Your task to perform on an android device: Open location settings Image 0: 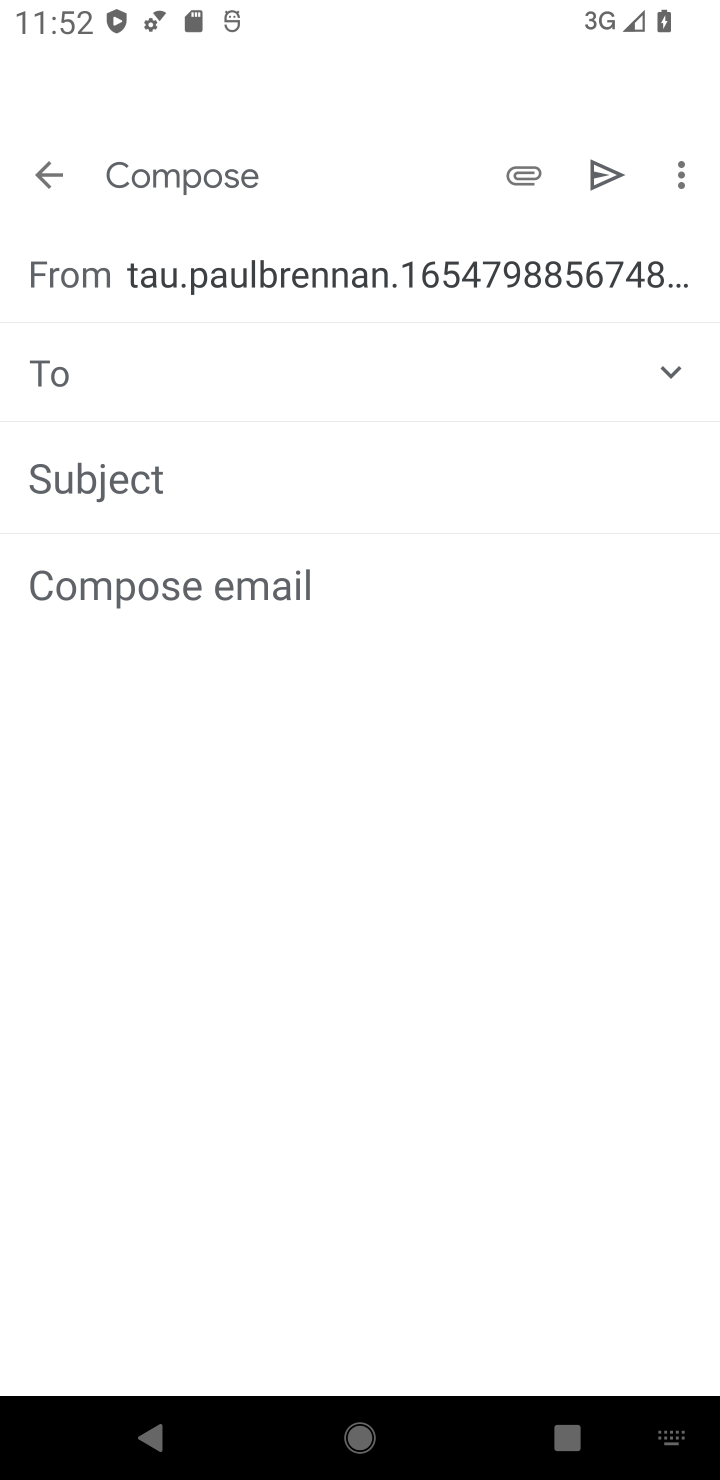
Step 0: press home button
Your task to perform on an android device: Open location settings Image 1: 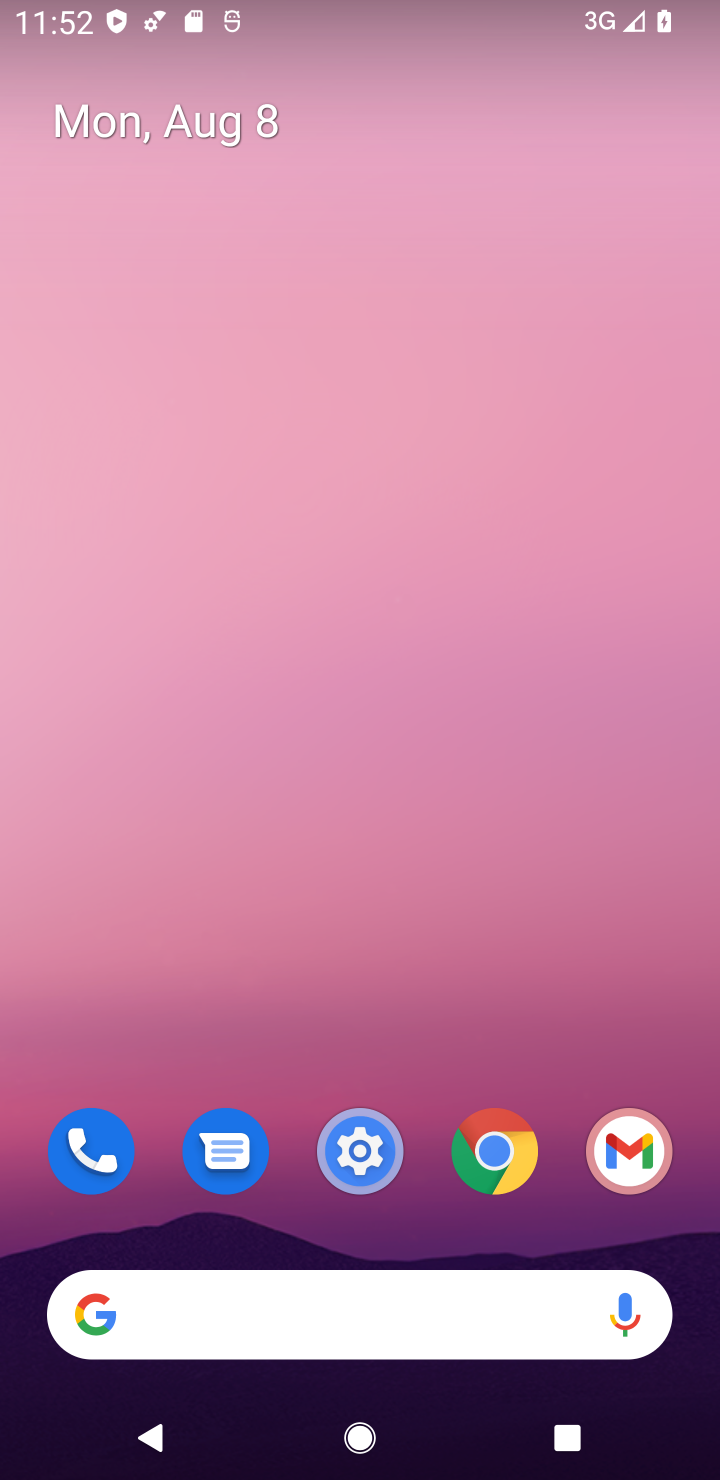
Step 1: click (329, 1138)
Your task to perform on an android device: Open location settings Image 2: 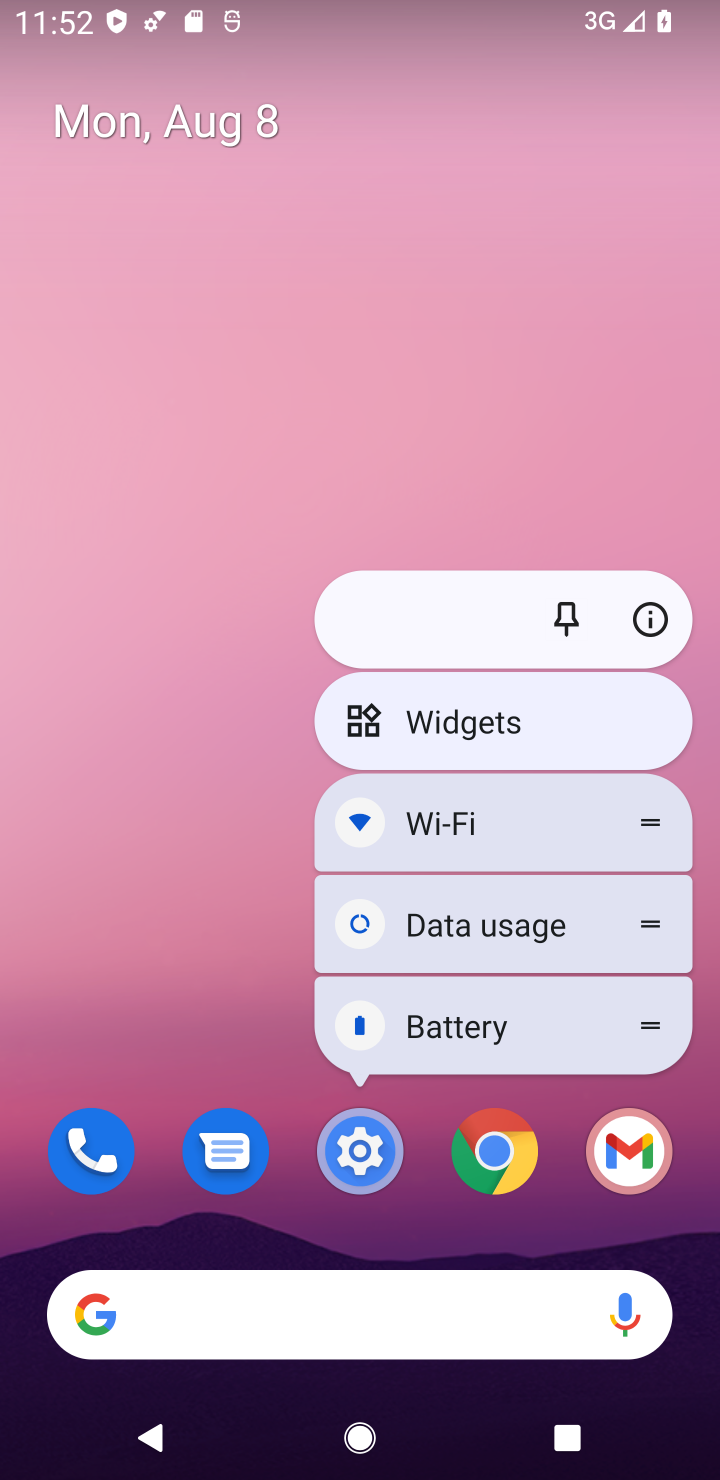
Step 2: click (352, 1166)
Your task to perform on an android device: Open location settings Image 3: 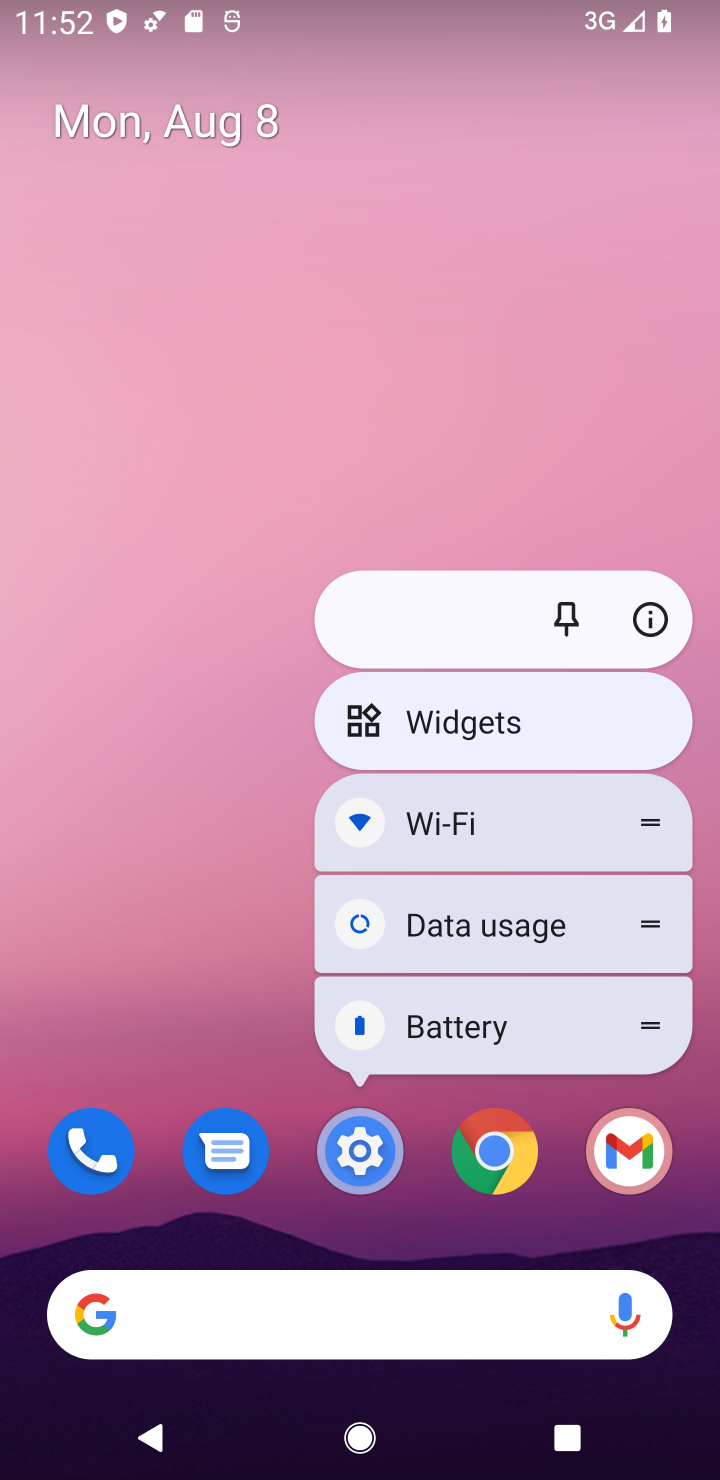
Step 3: click (352, 1166)
Your task to perform on an android device: Open location settings Image 4: 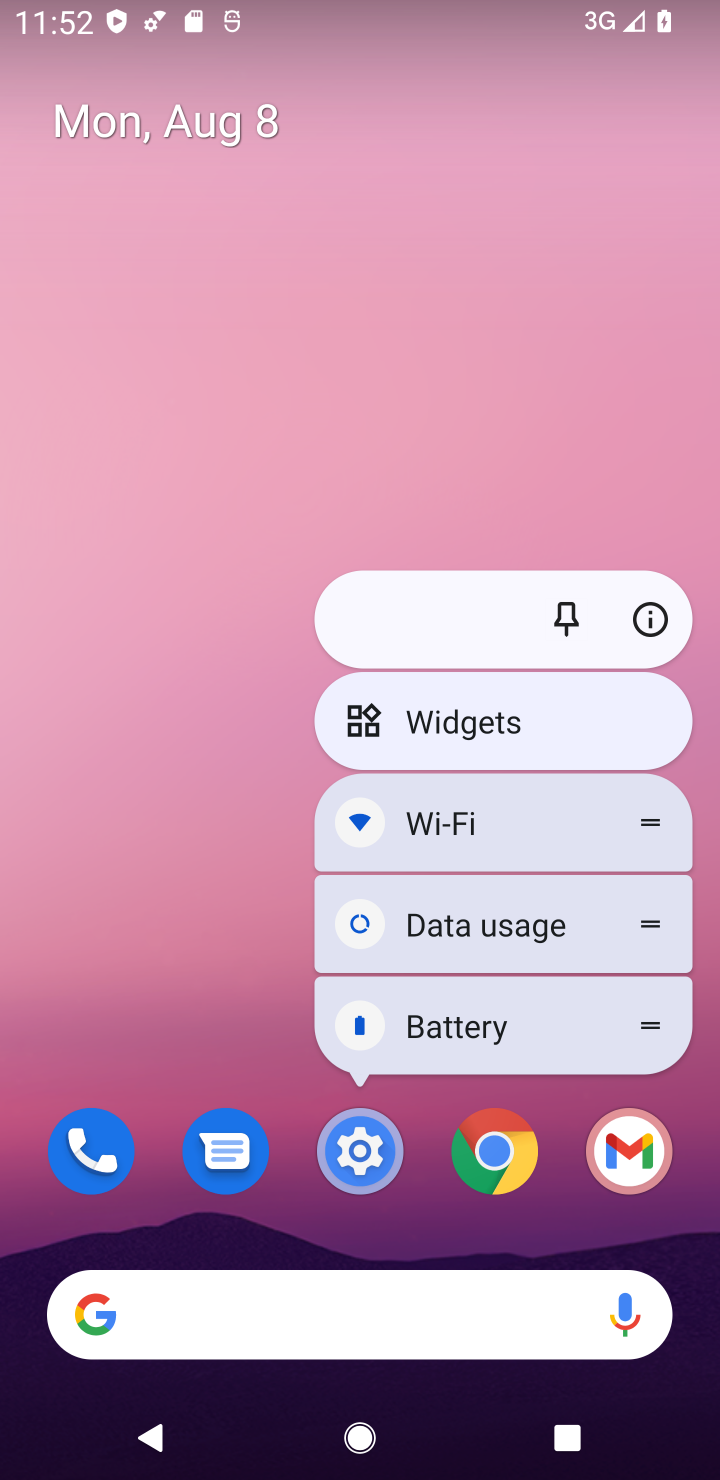
Step 4: click (366, 1147)
Your task to perform on an android device: Open location settings Image 5: 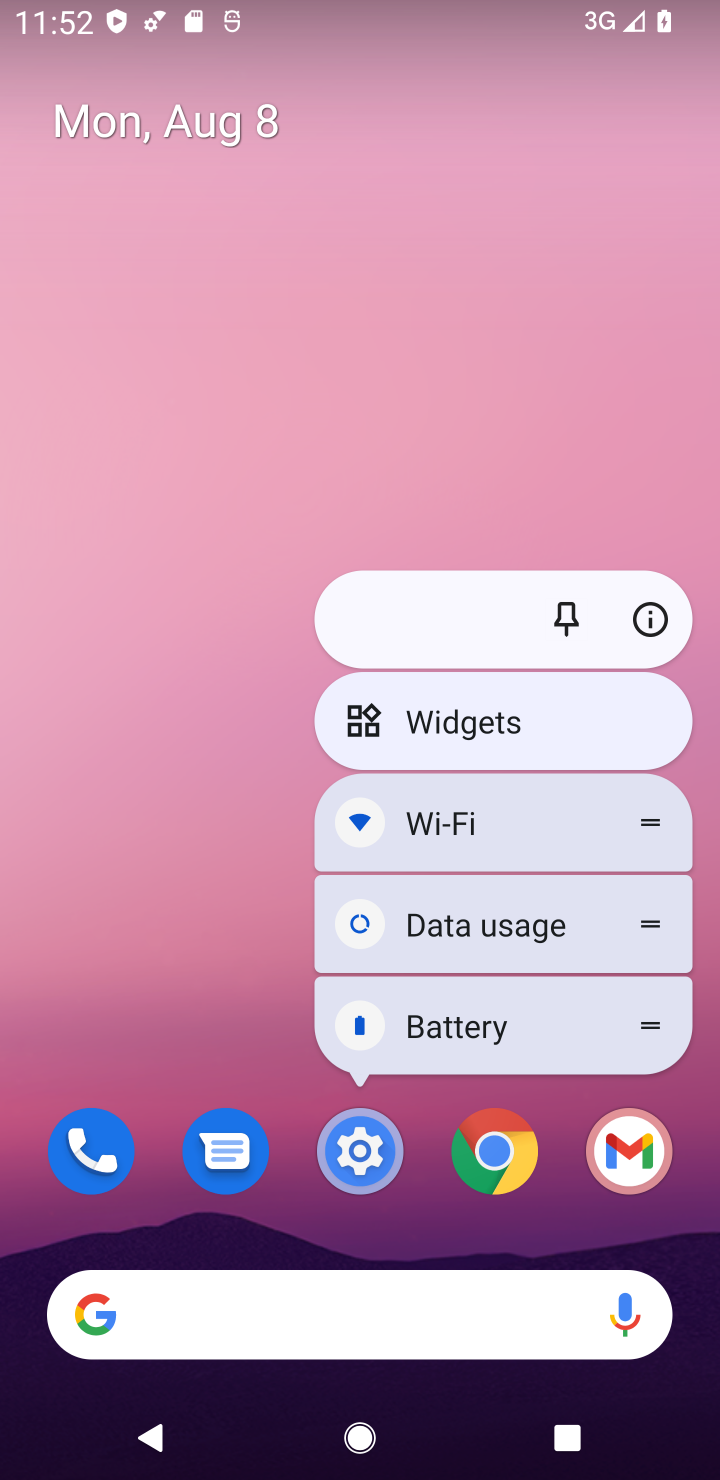
Step 5: click (365, 1149)
Your task to perform on an android device: Open location settings Image 6: 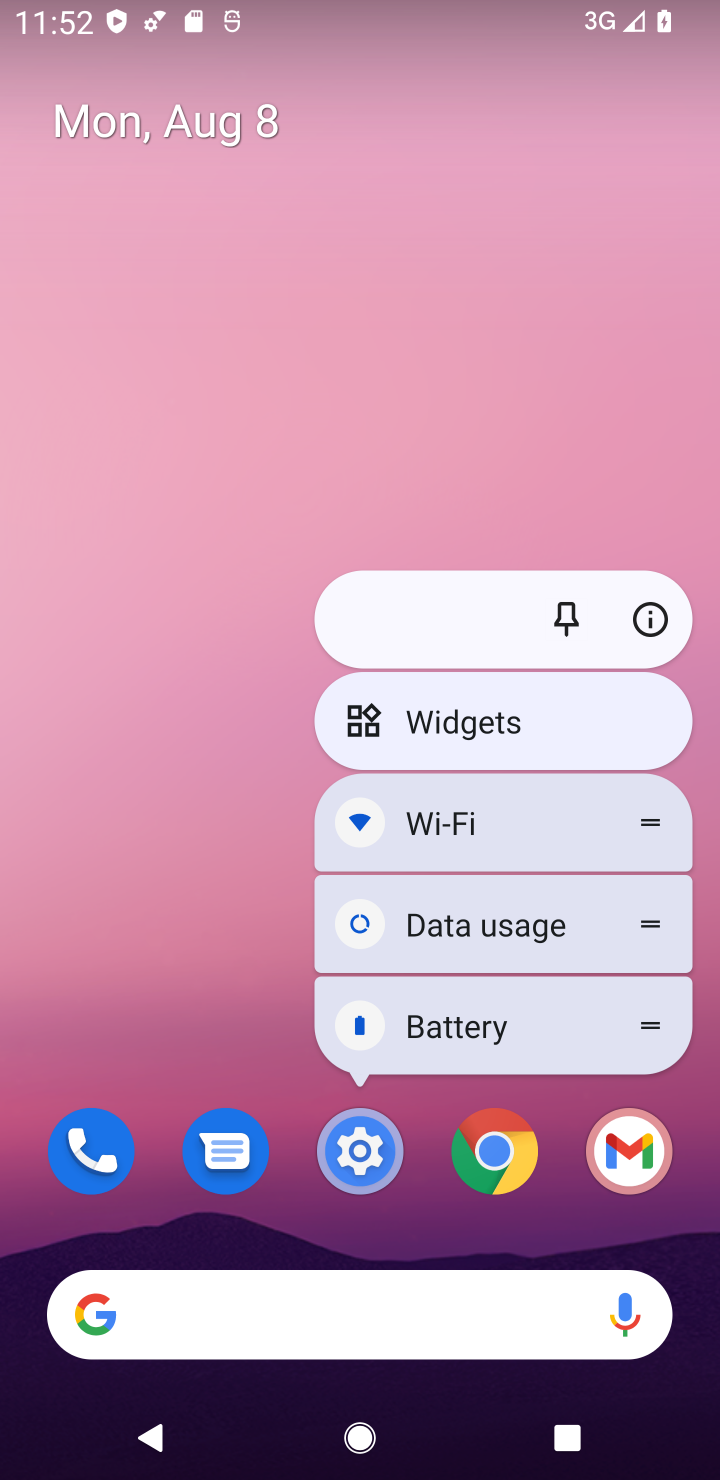
Step 6: click (388, 1166)
Your task to perform on an android device: Open location settings Image 7: 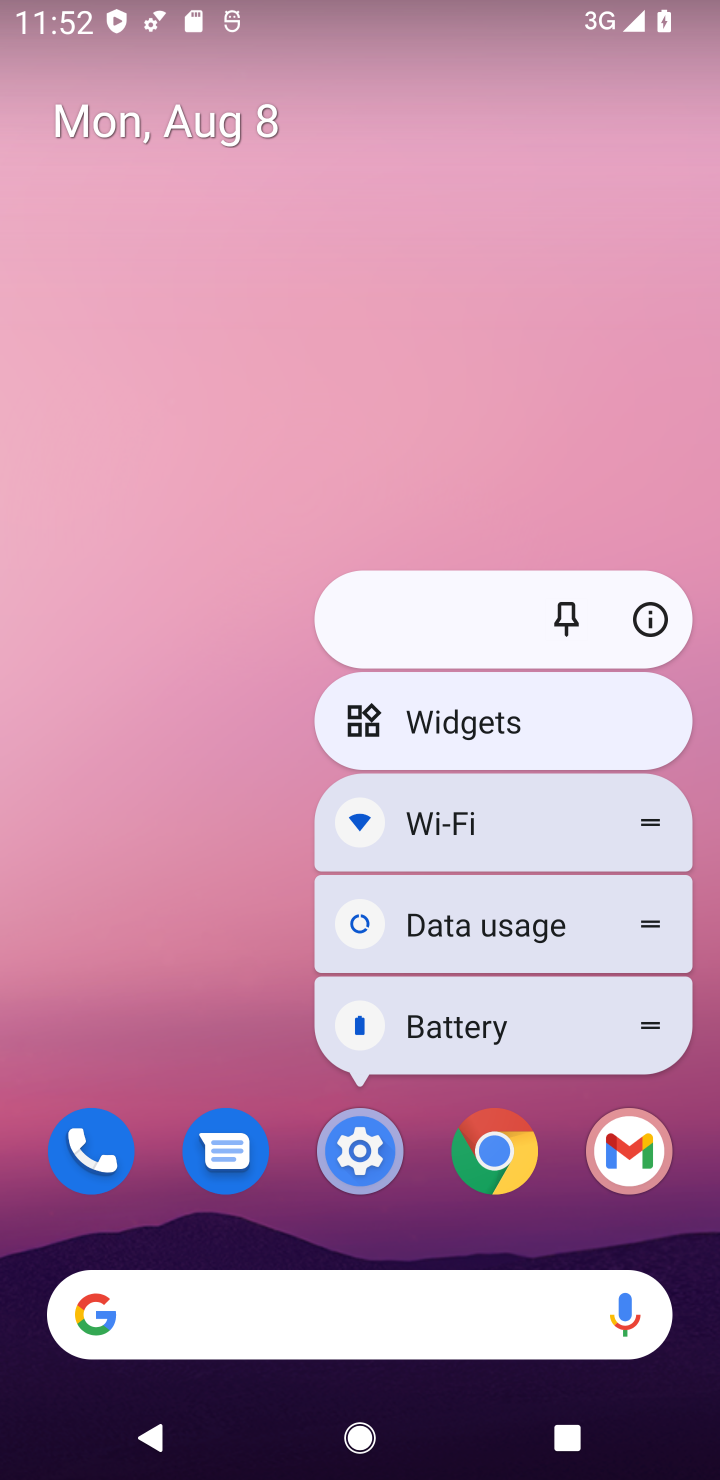
Step 7: click (363, 1145)
Your task to perform on an android device: Open location settings Image 8: 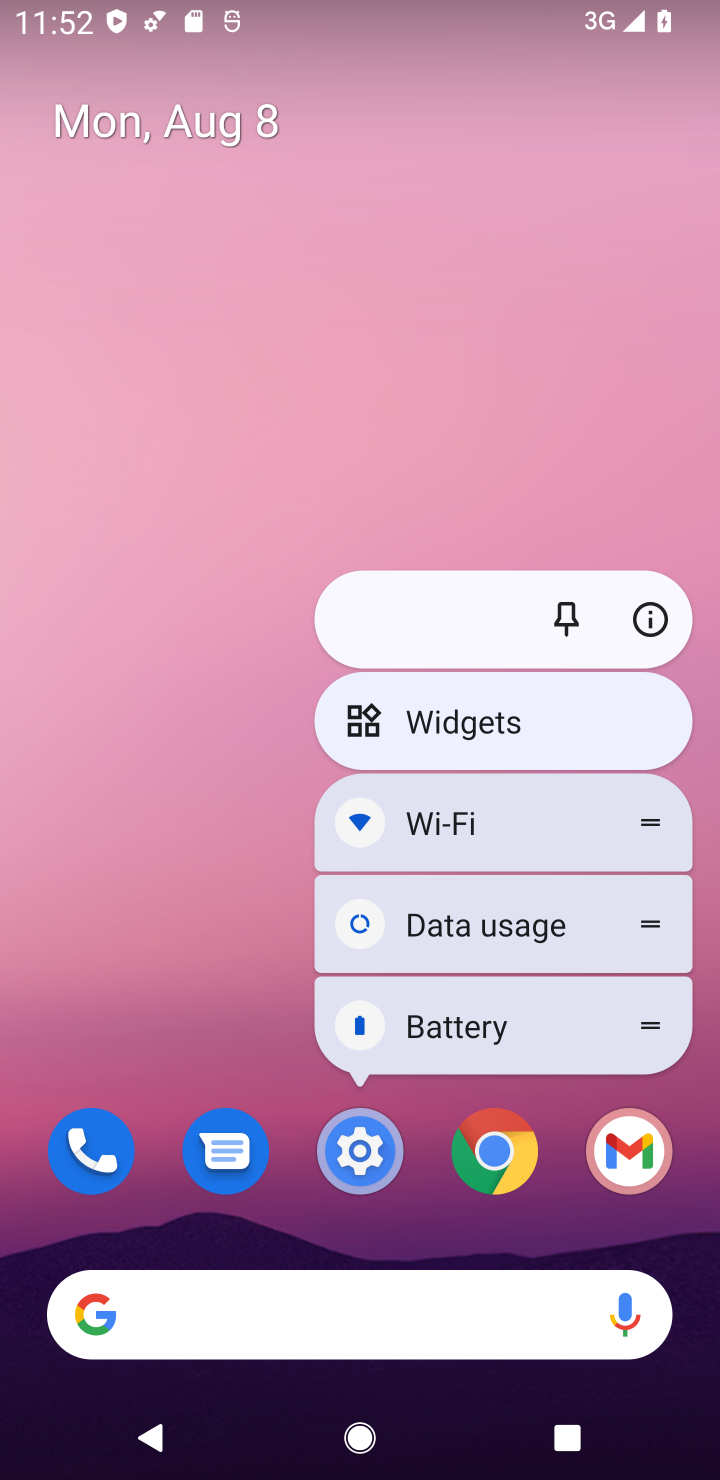
Step 8: click (362, 1180)
Your task to perform on an android device: Open location settings Image 9: 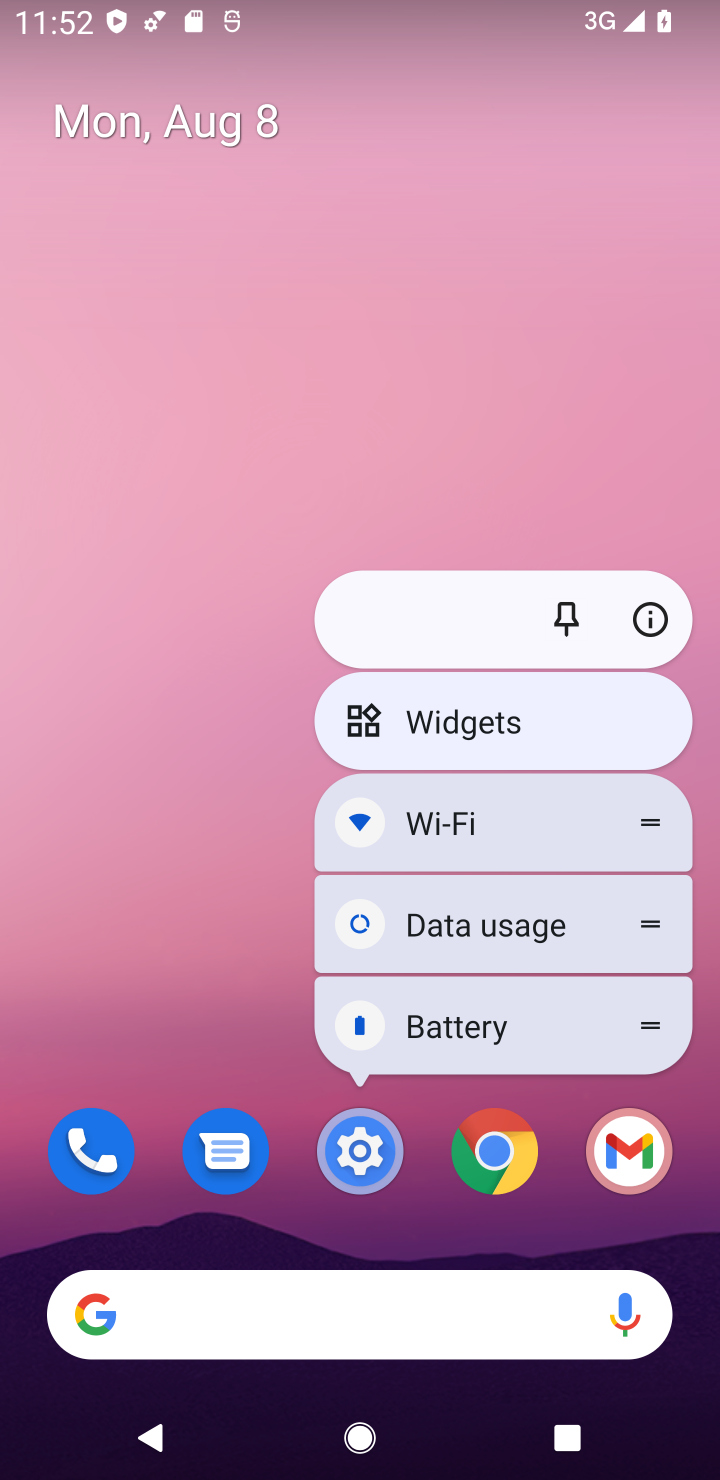
Step 9: click (374, 1176)
Your task to perform on an android device: Open location settings Image 10: 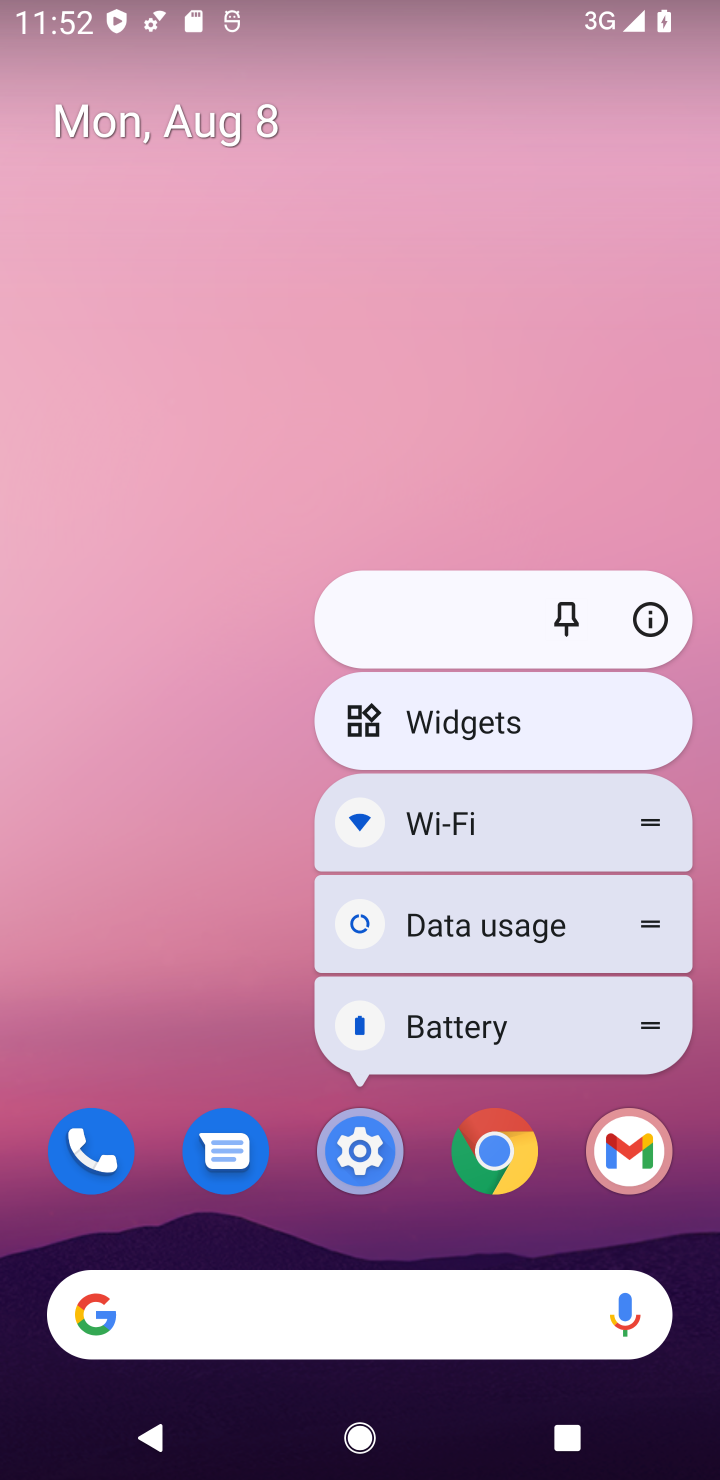
Step 10: click (361, 1148)
Your task to perform on an android device: Open location settings Image 11: 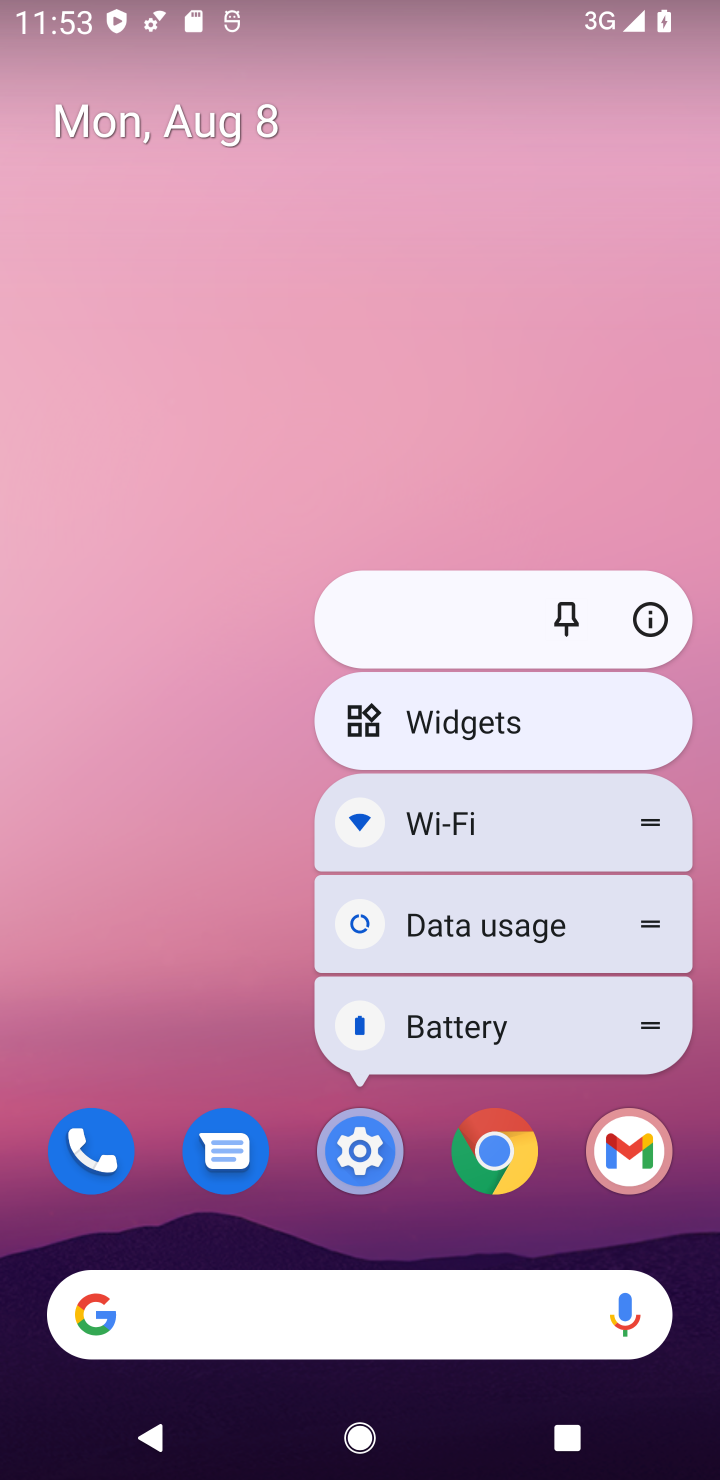
Step 11: click (375, 1155)
Your task to perform on an android device: Open location settings Image 12: 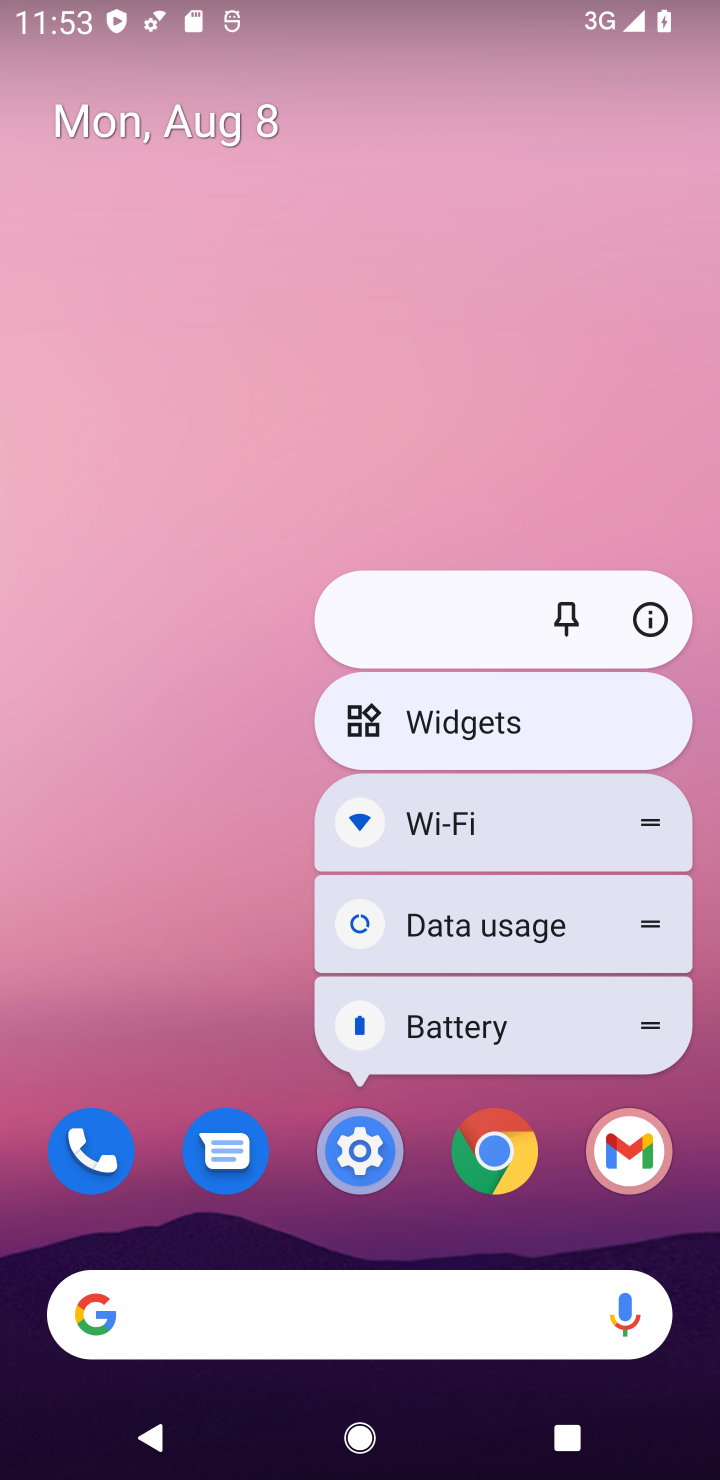
Step 12: drag from (292, 1254) to (179, 492)
Your task to perform on an android device: Open location settings Image 13: 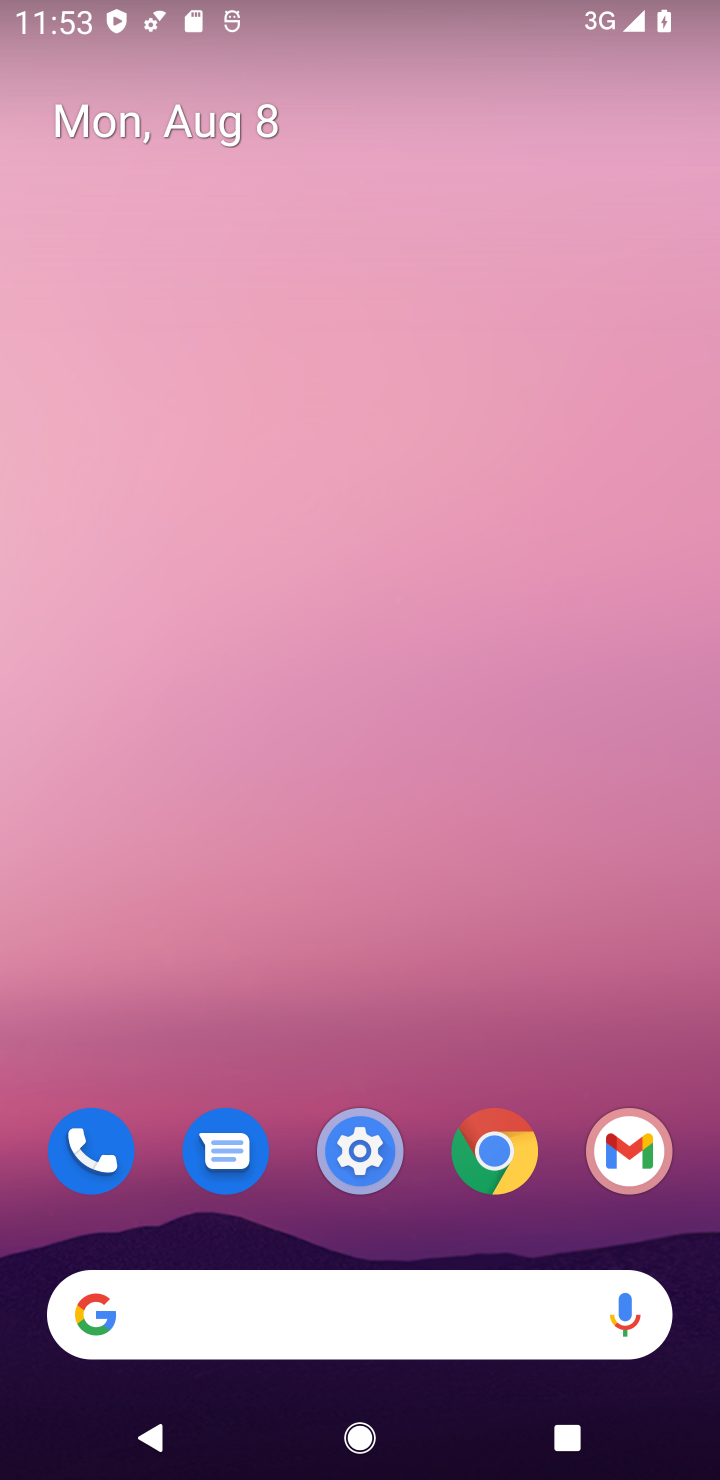
Step 13: drag from (408, 1254) to (243, 225)
Your task to perform on an android device: Open location settings Image 14: 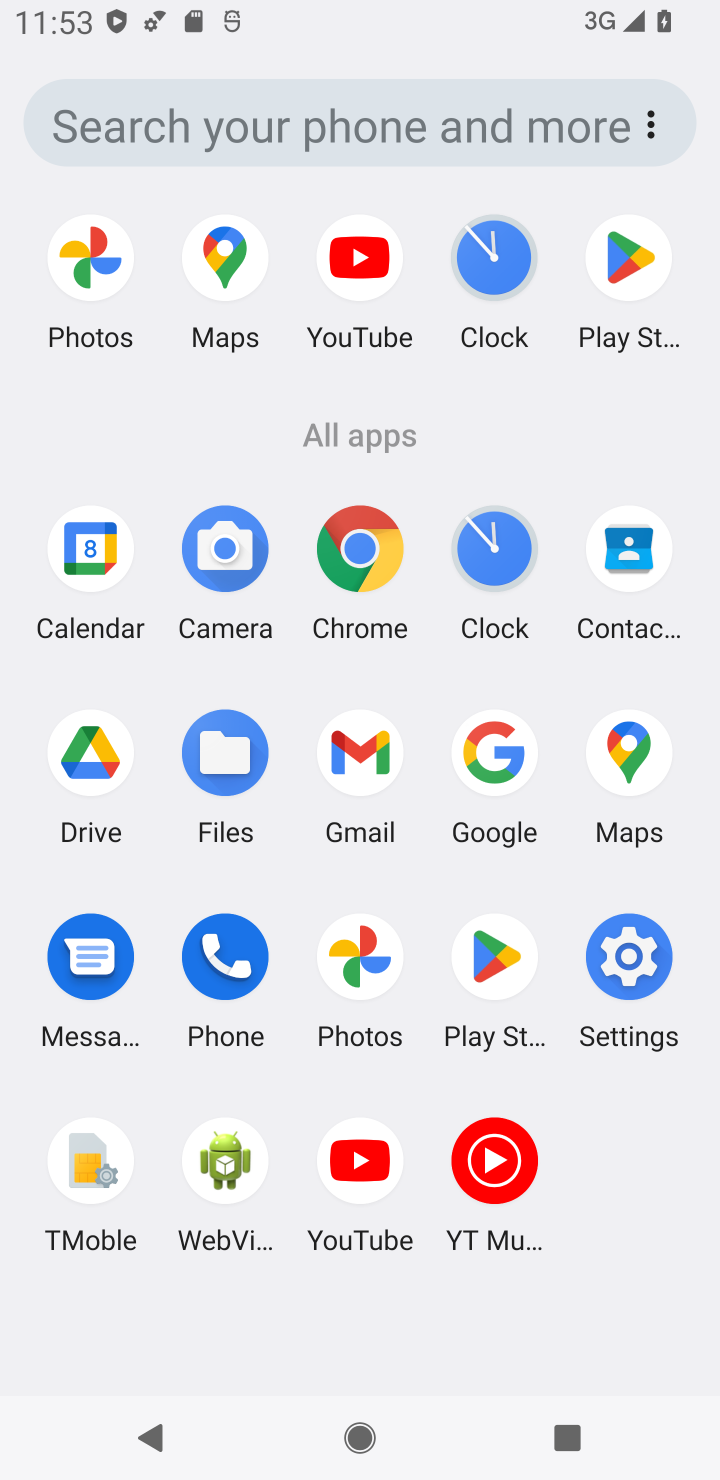
Step 14: click (636, 956)
Your task to perform on an android device: Open location settings Image 15: 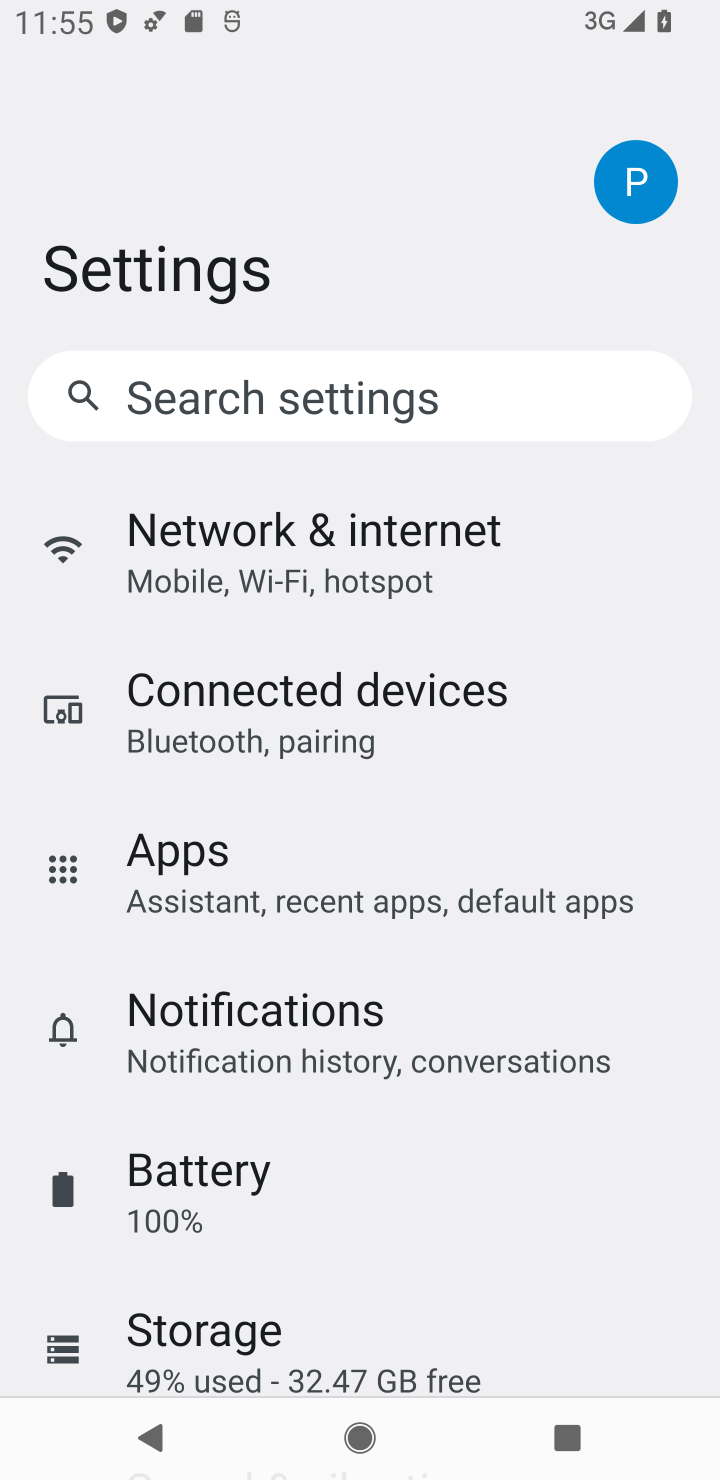
Step 15: drag from (286, 1191) to (187, 561)
Your task to perform on an android device: Open location settings Image 16: 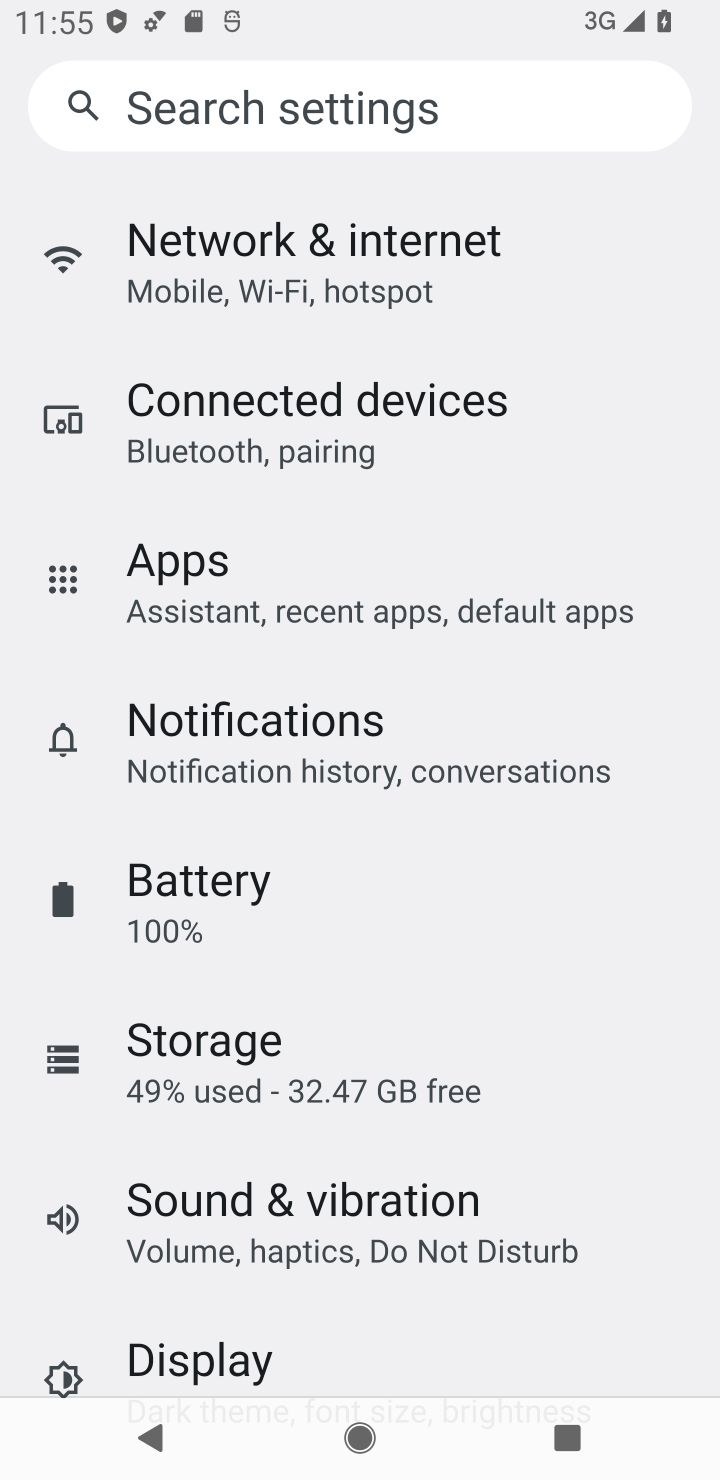
Step 16: drag from (278, 1186) to (226, 592)
Your task to perform on an android device: Open location settings Image 17: 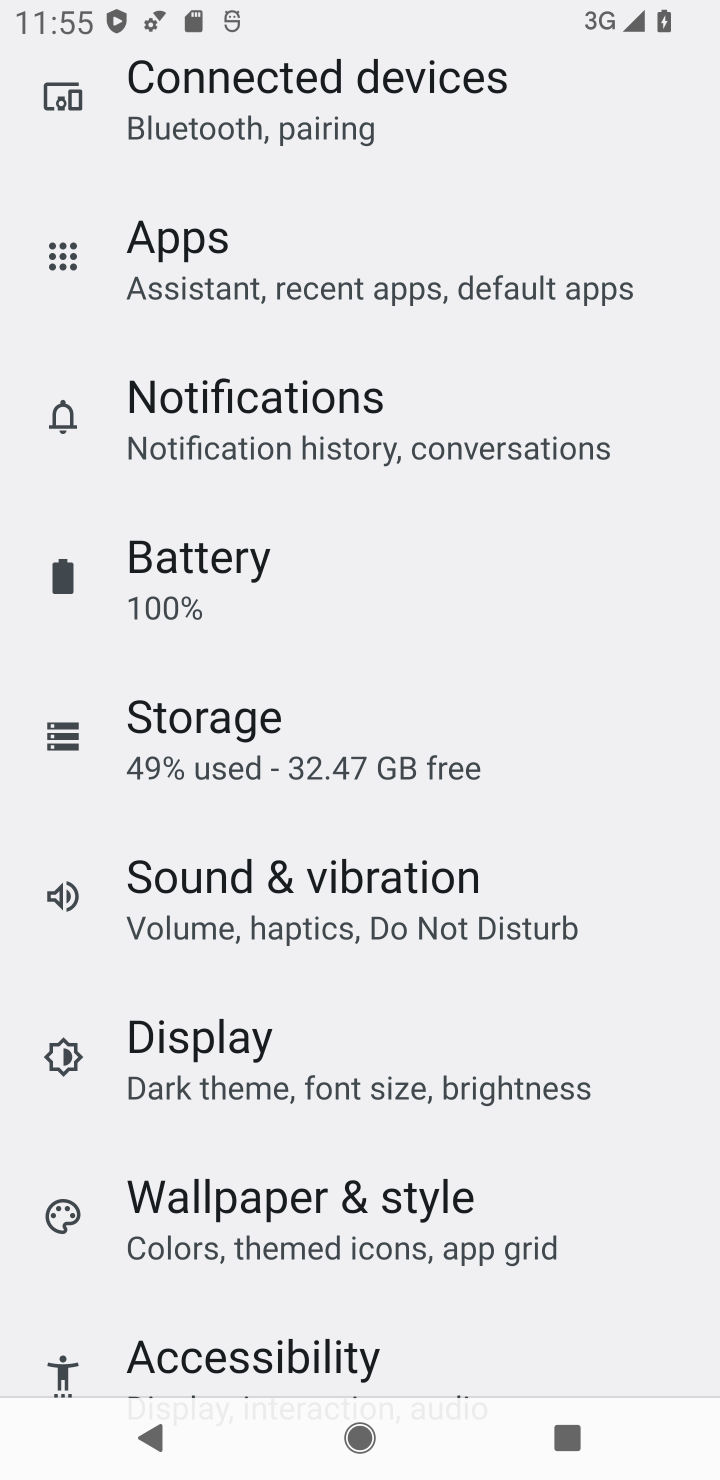
Step 17: drag from (263, 1319) to (209, 711)
Your task to perform on an android device: Open location settings Image 18: 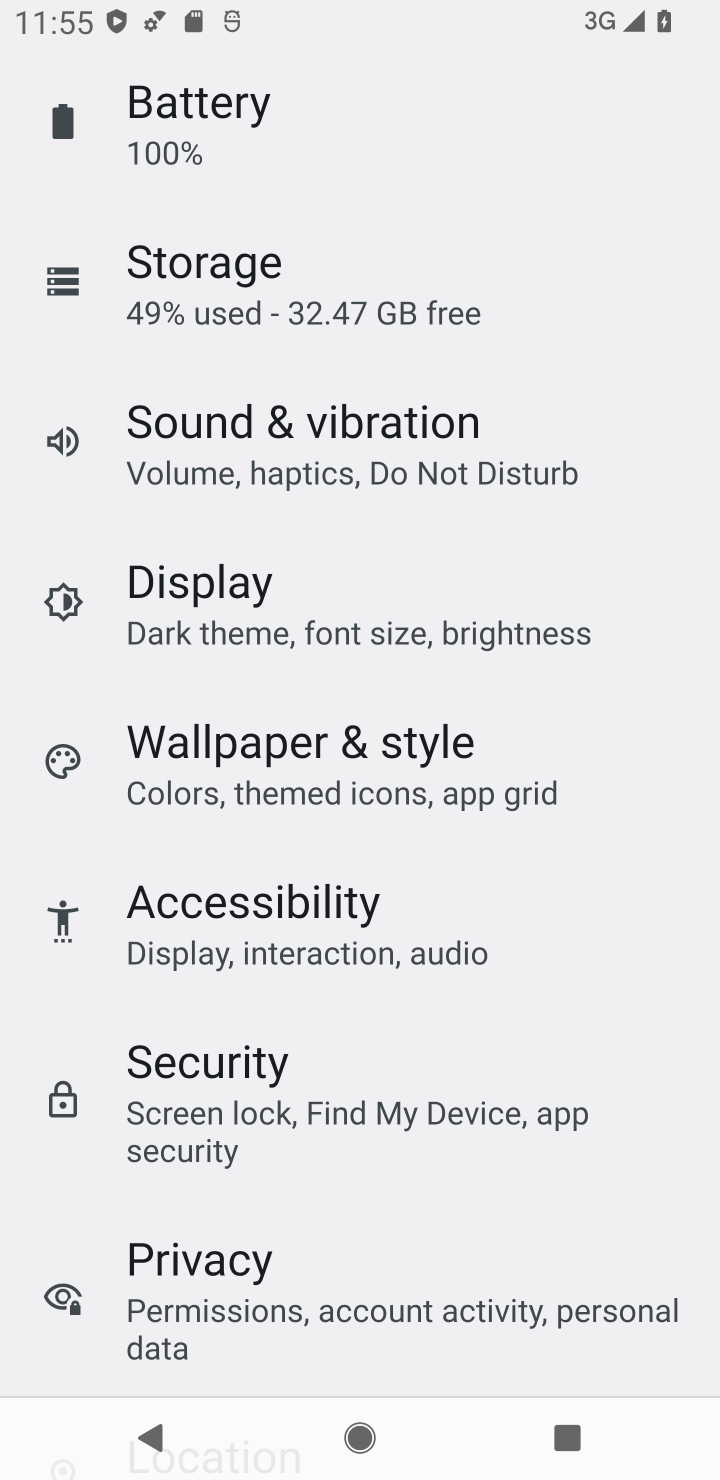
Step 18: drag from (230, 1275) to (230, 687)
Your task to perform on an android device: Open location settings Image 19: 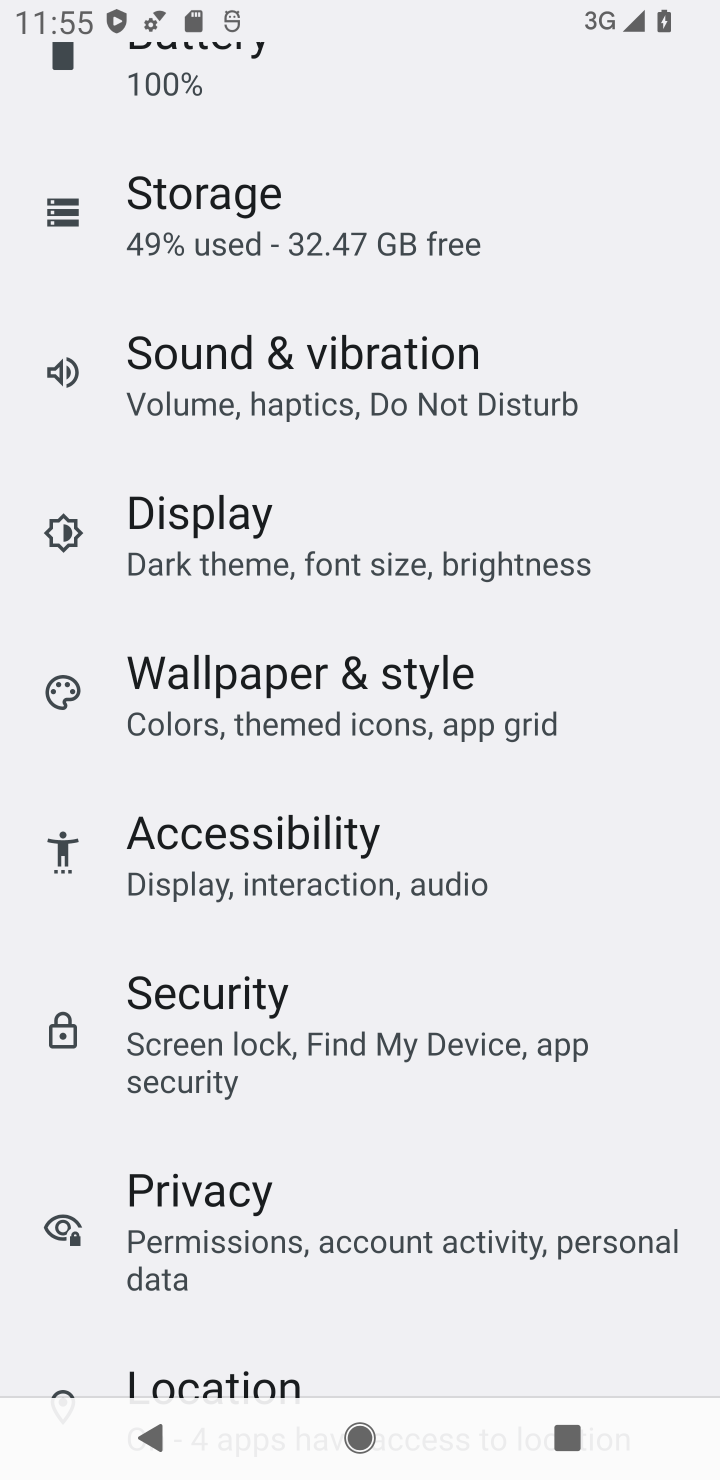
Step 19: click (197, 1381)
Your task to perform on an android device: Open location settings Image 20: 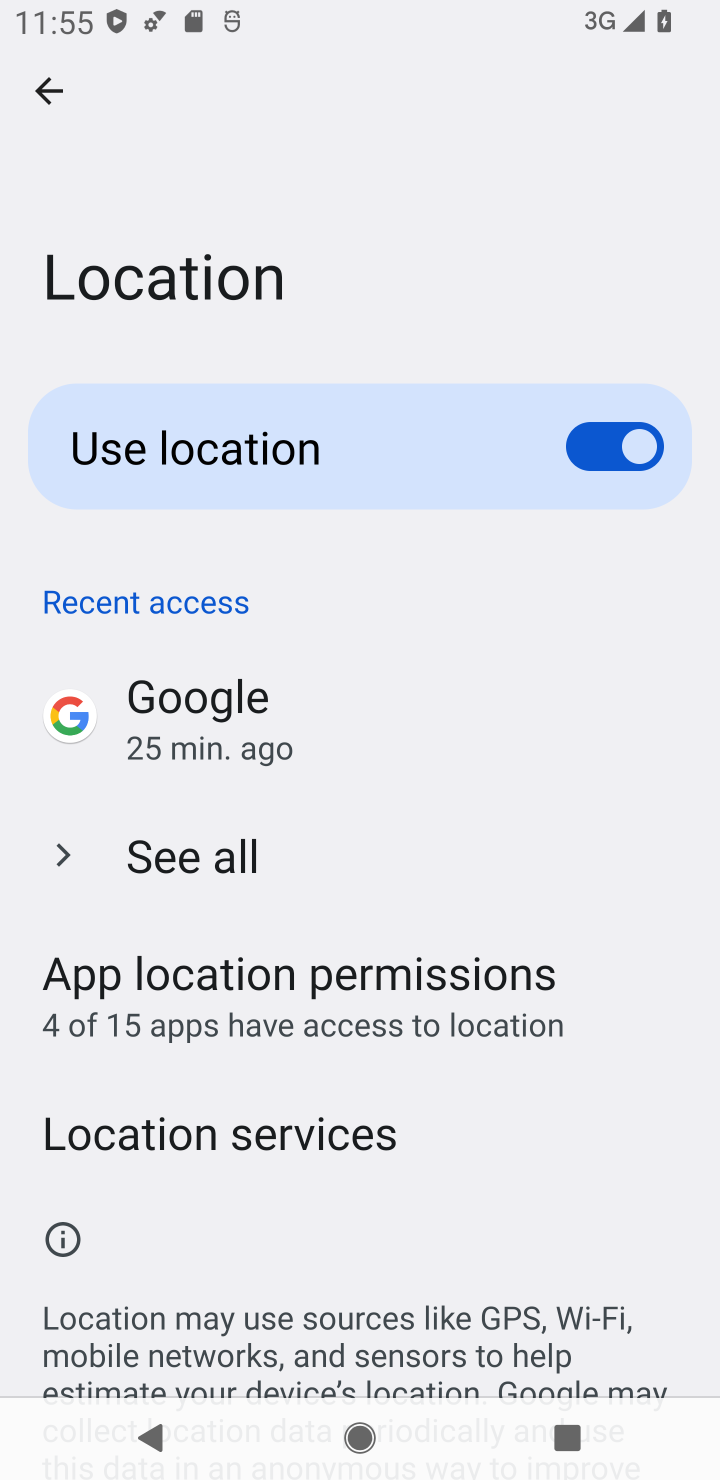
Step 20: drag from (272, 1271) to (269, 540)
Your task to perform on an android device: Open location settings Image 21: 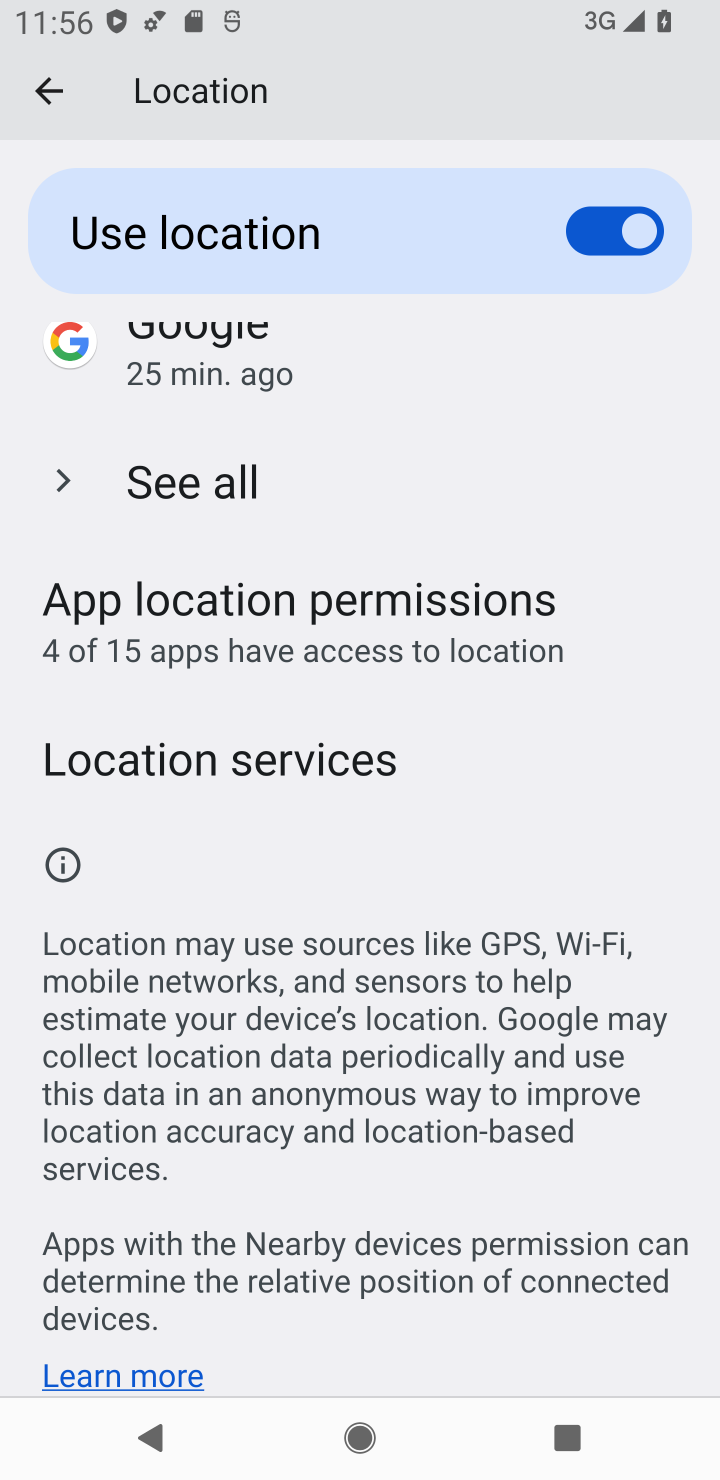
Step 21: click (193, 753)
Your task to perform on an android device: Open location settings Image 22: 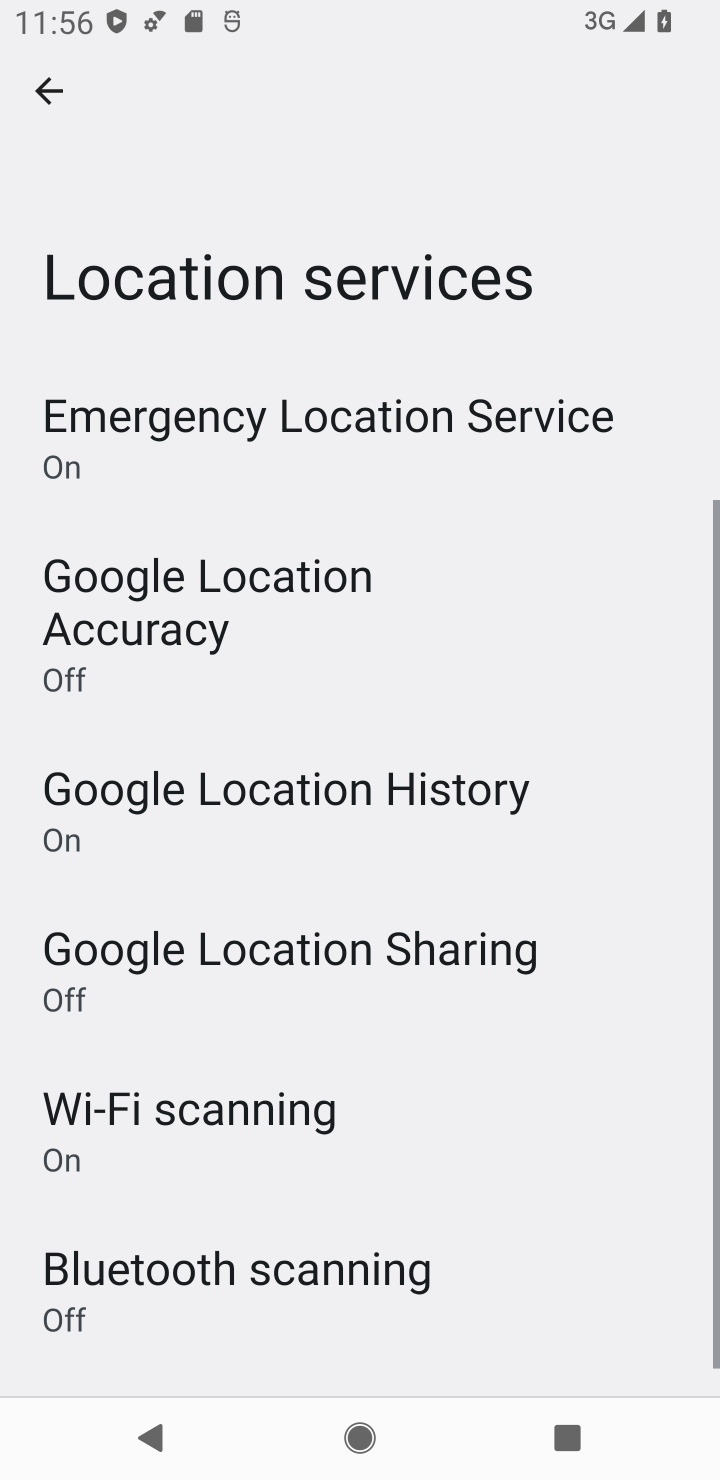
Step 22: task complete